Your task to perform on an android device: Open Google Chrome and click the shortcut for Amazon.com Image 0: 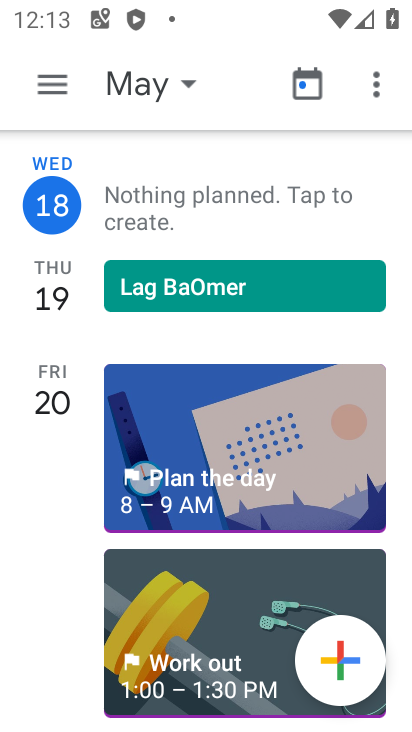
Step 0: press back button
Your task to perform on an android device: Open Google Chrome and click the shortcut for Amazon.com Image 1: 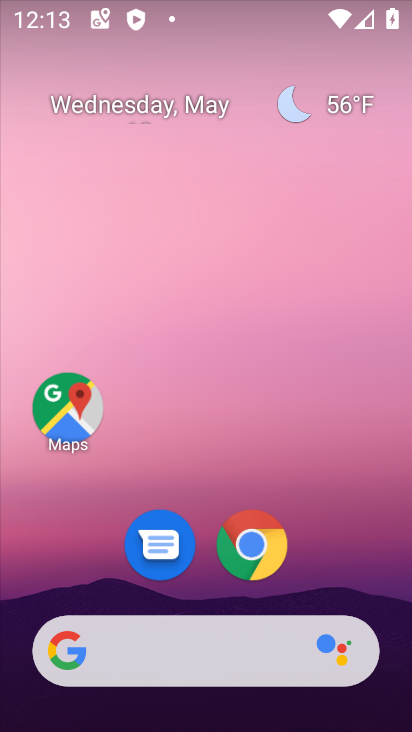
Step 1: click (254, 545)
Your task to perform on an android device: Open Google Chrome and click the shortcut for Amazon.com Image 2: 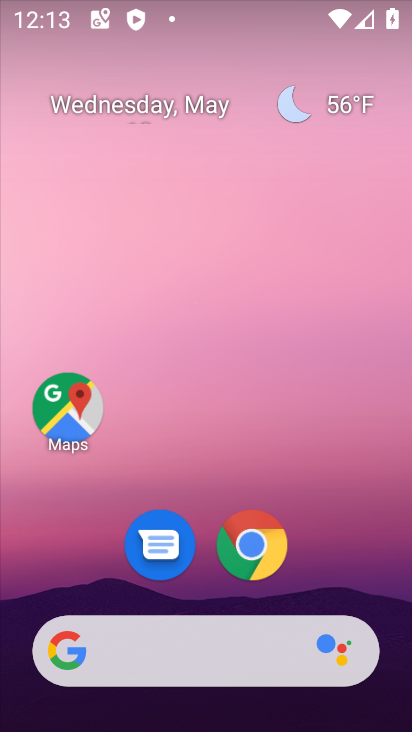
Step 2: click (254, 545)
Your task to perform on an android device: Open Google Chrome and click the shortcut for Amazon.com Image 3: 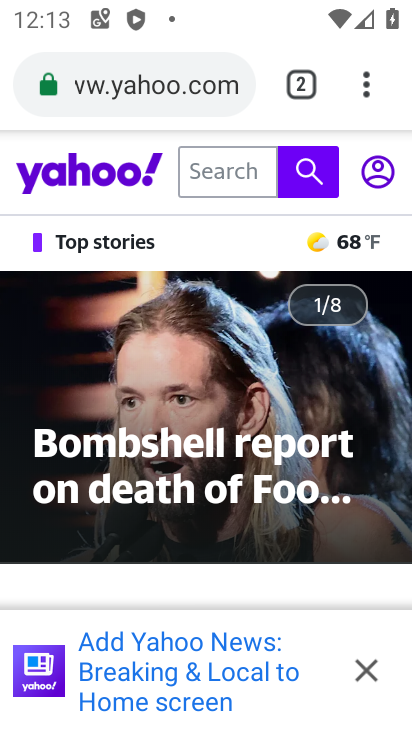
Step 3: click (233, 88)
Your task to perform on an android device: Open Google Chrome and click the shortcut for Amazon.com Image 4: 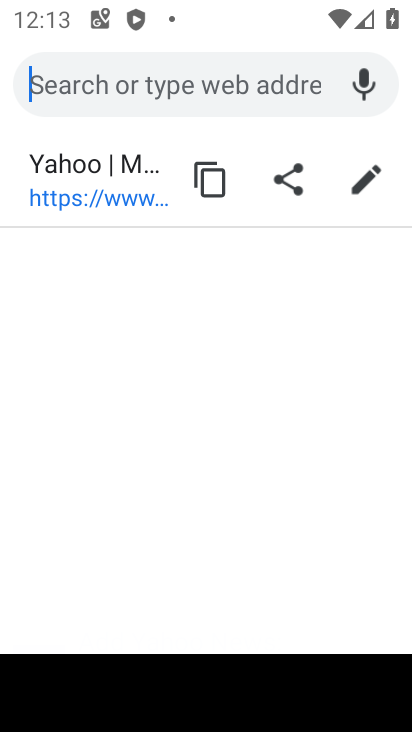
Step 4: type "Amazon.com"
Your task to perform on an android device: Open Google Chrome and click the shortcut for Amazon.com Image 5: 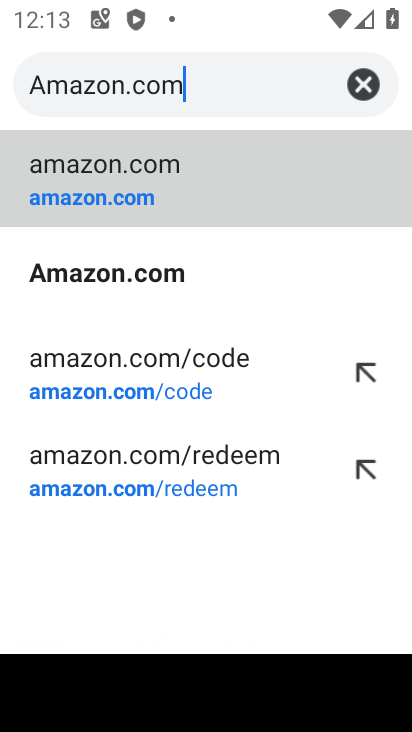
Step 5: click (151, 275)
Your task to perform on an android device: Open Google Chrome and click the shortcut for Amazon.com Image 6: 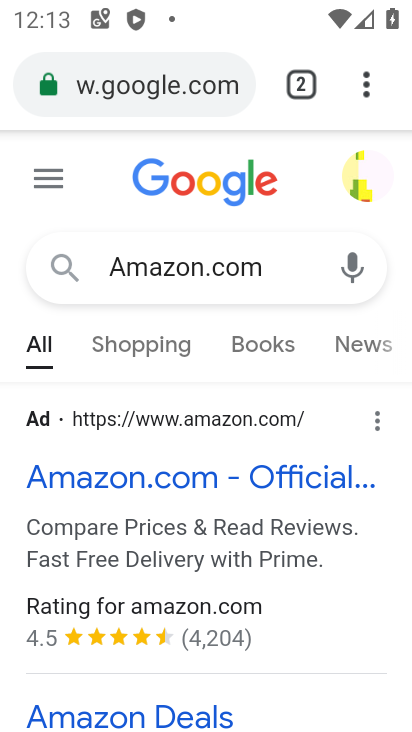
Step 6: click (185, 481)
Your task to perform on an android device: Open Google Chrome and click the shortcut for Amazon.com Image 7: 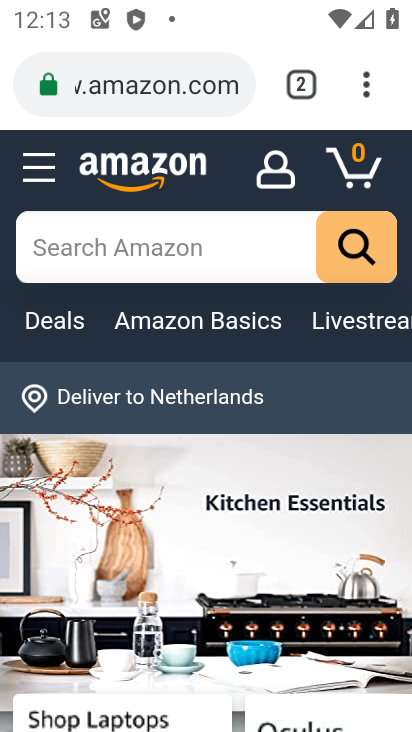
Step 7: click (367, 83)
Your task to perform on an android device: Open Google Chrome and click the shortcut for Amazon.com Image 8: 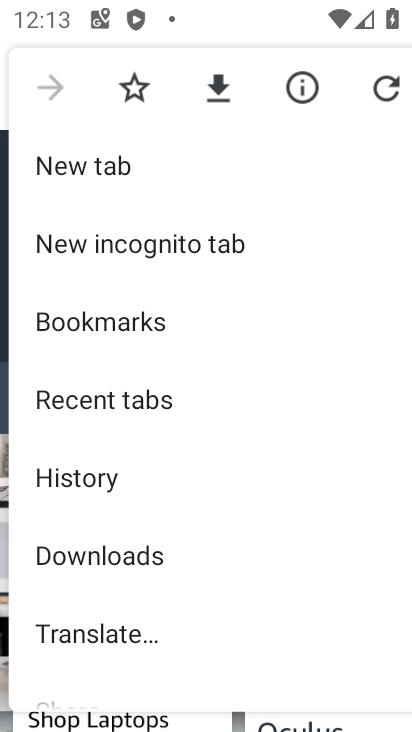
Step 8: drag from (228, 503) to (340, 362)
Your task to perform on an android device: Open Google Chrome and click the shortcut for Amazon.com Image 9: 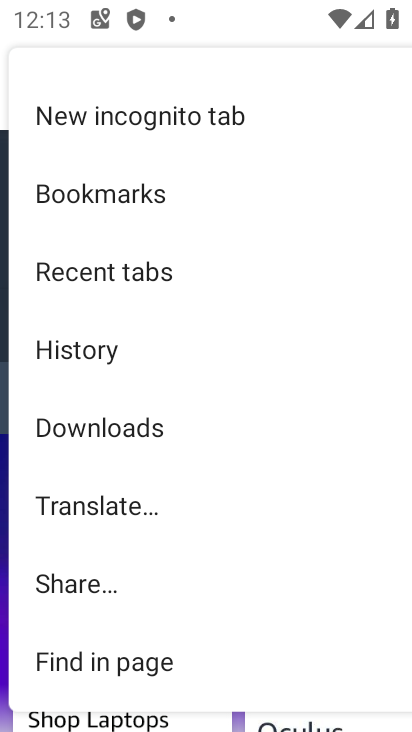
Step 9: drag from (210, 542) to (297, 342)
Your task to perform on an android device: Open Google Chrome and click the shortcut for Amazon.com Image 10: 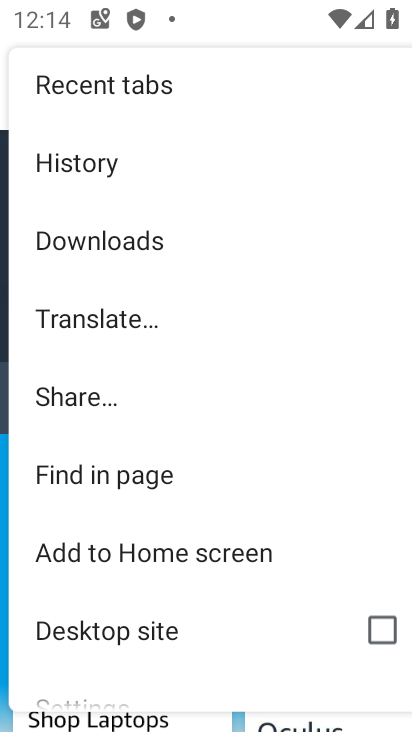
Step 10: click (224, 550)
Your task to perform on an android device: Open Google Chrome and click the shortcut for Amazon.com Image 11: 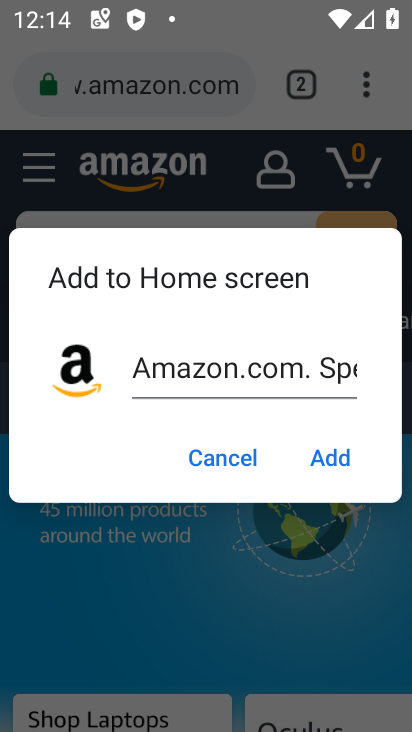
Step 11: click (307, 452)
Your task to perform on an android device: Open Google Chrome and click the shortcut for Amazon.com Image 12: 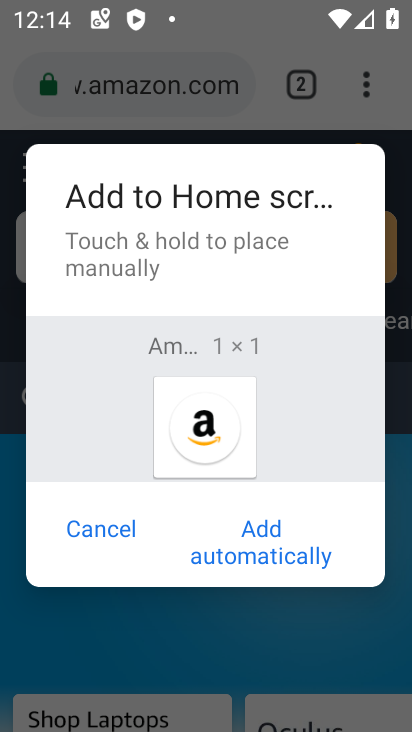
Step 12: click (289, 541)
Your task to perform on an android device: Open Google Chrome and click the shortcut for Amazon.com Image 13: 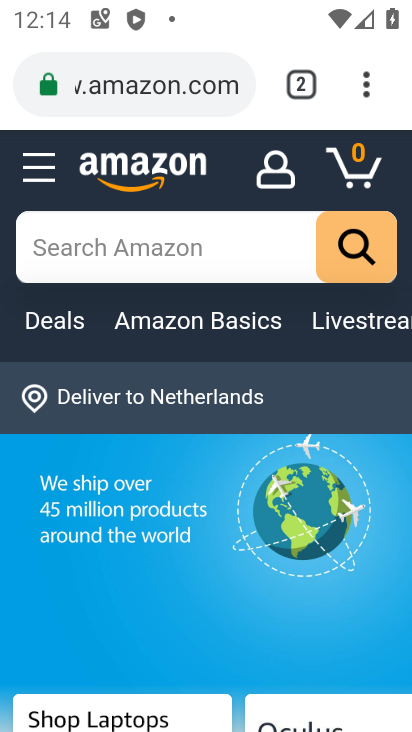
Step 13: task complete